Your task to perform on an android device: Open CNN.com Image 0: 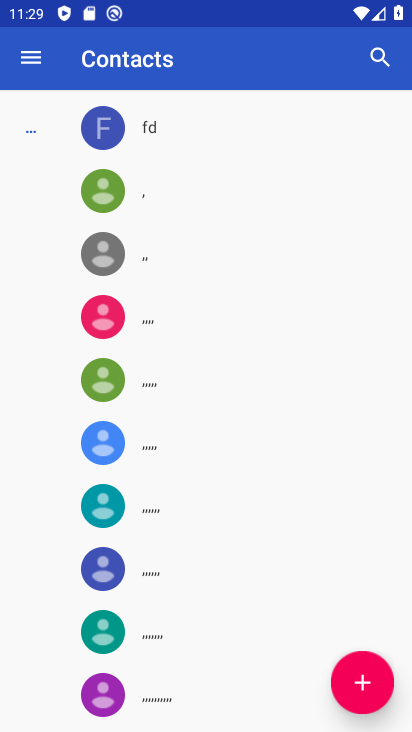
Step 0: press home button
Your task to perform on an android device: Open CNN.com Image 1: 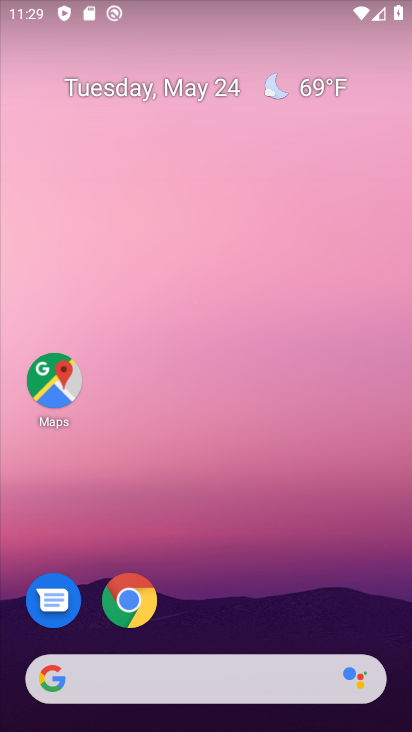
Step 1: drag from (361, 589) to (354, 137)
Your task to perform on an android device: Open CNN.com Image 2: 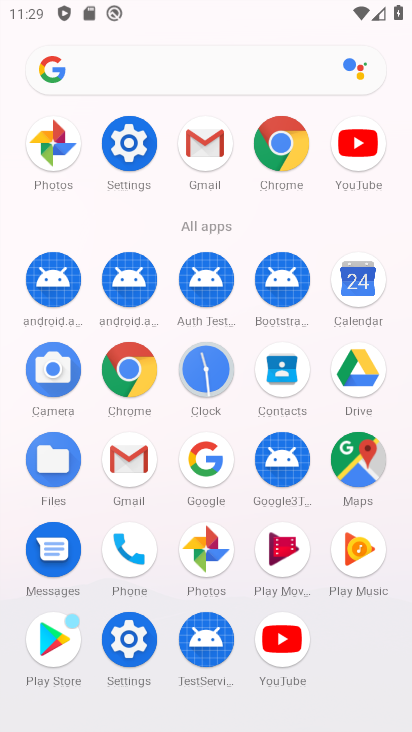
Step 2: click (138, 384)
Your task to perform on an android device: Open CNN.com Image 3: 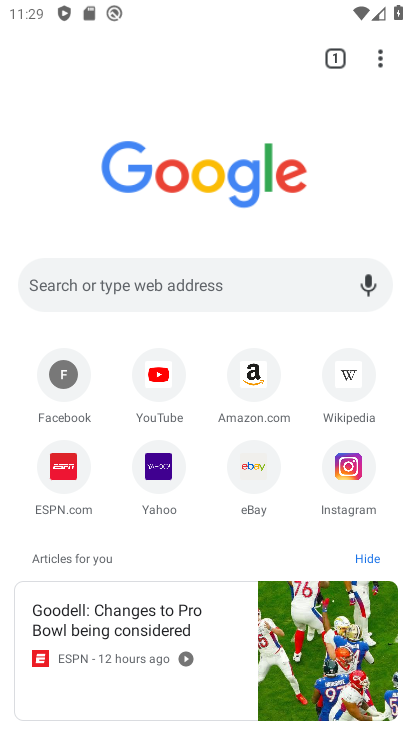
Step 3: click (239, 293)
Your task to perform on an android device: Open CNN.com Image 4: 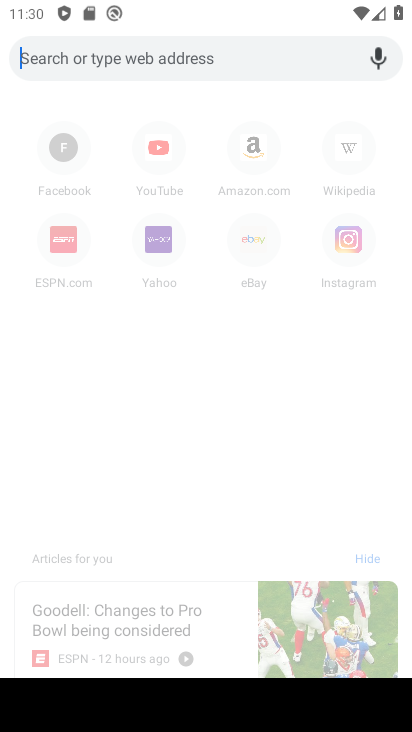
Step 4: type "cnn.com"
Your task to perform on an android device: Open CNN.com Image 5: 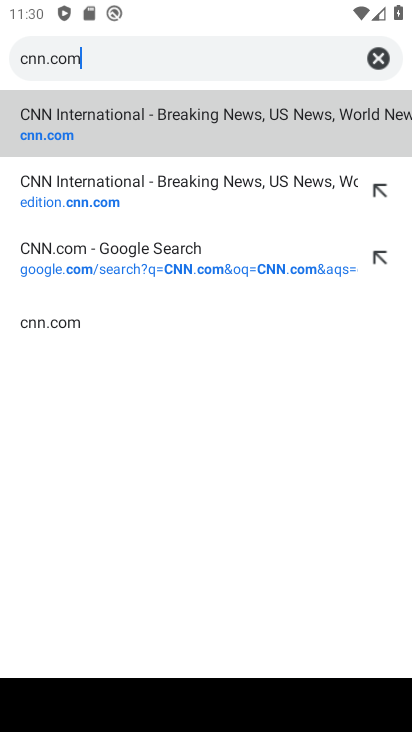
Step 5: click (73, 323)
Your task to perform on an android device: Open CNN.com Image 6: 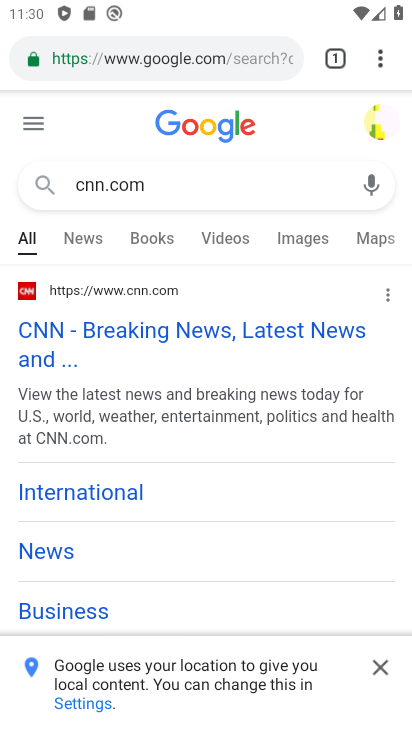
Step 6: task complete